Your task to perform on an android device: Open Amazon Image 0: 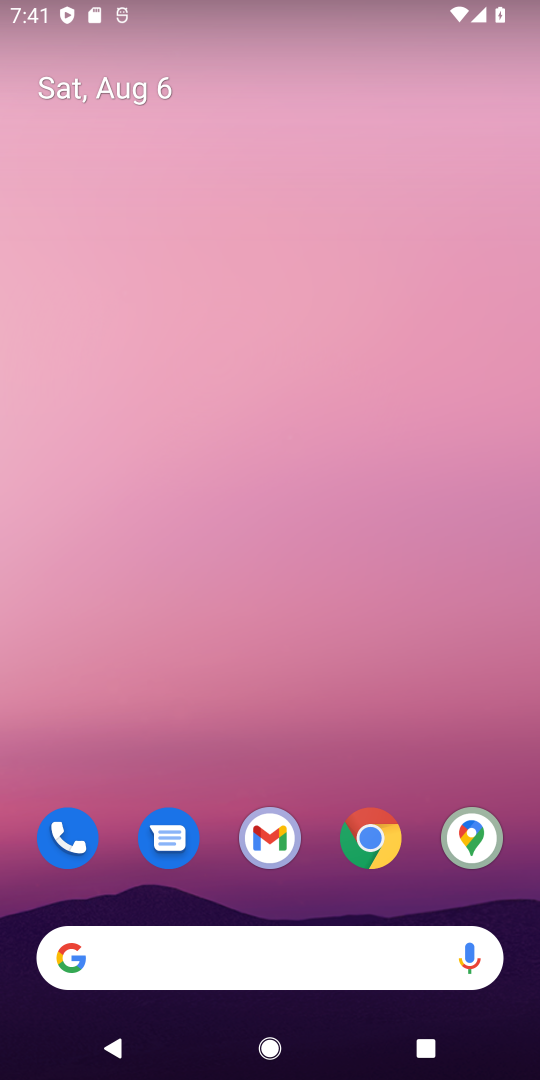
Step 0: press home button
Your task to perform on an android device: Open Amazon Image 1: 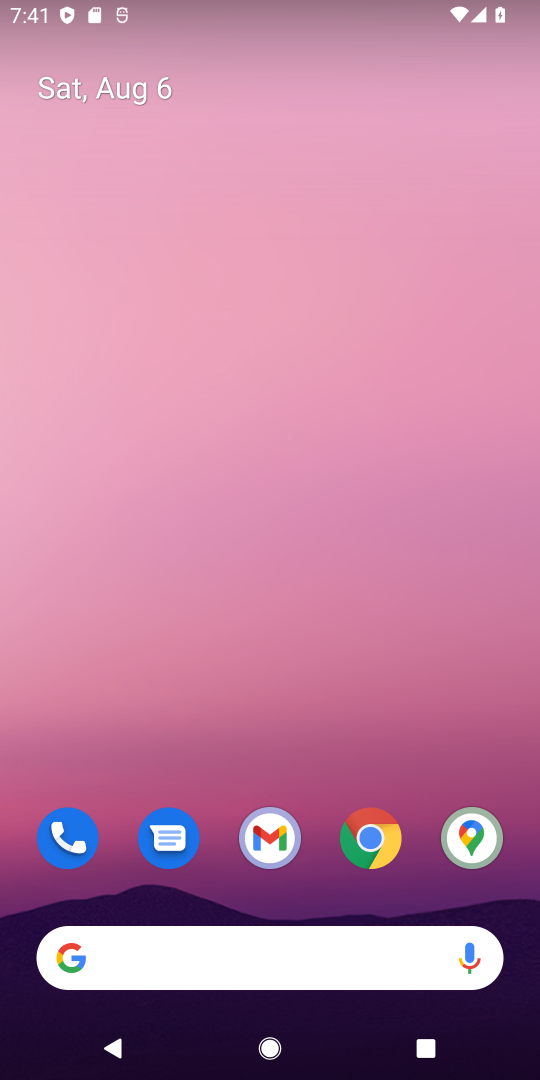
Step 1: click (364, 849)
Your task to perform on an android device: Open Amazon Image 2: 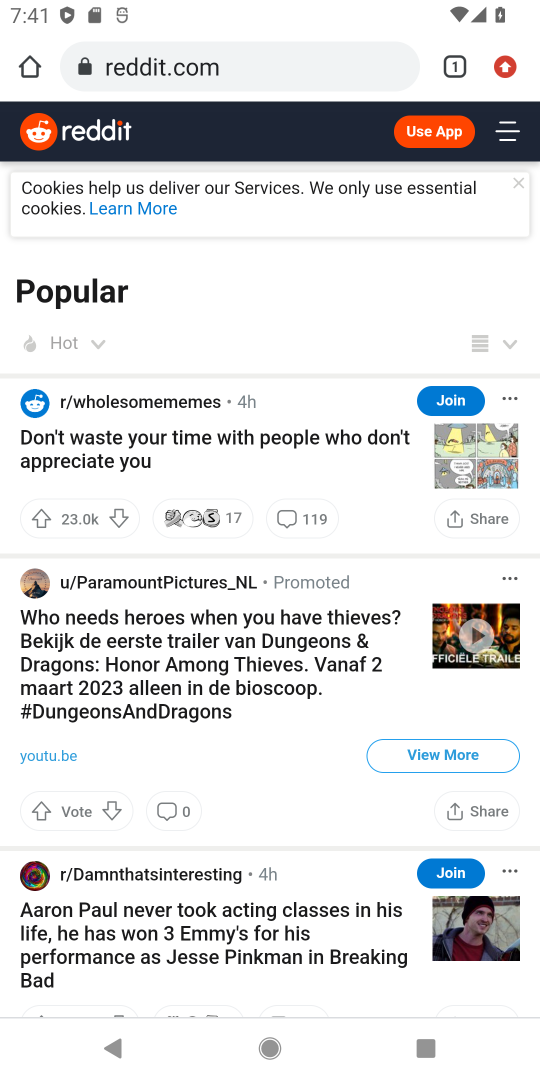
Step 2: click (184, 71)
Your task to perform on an android device: Open Amazon Image 3: 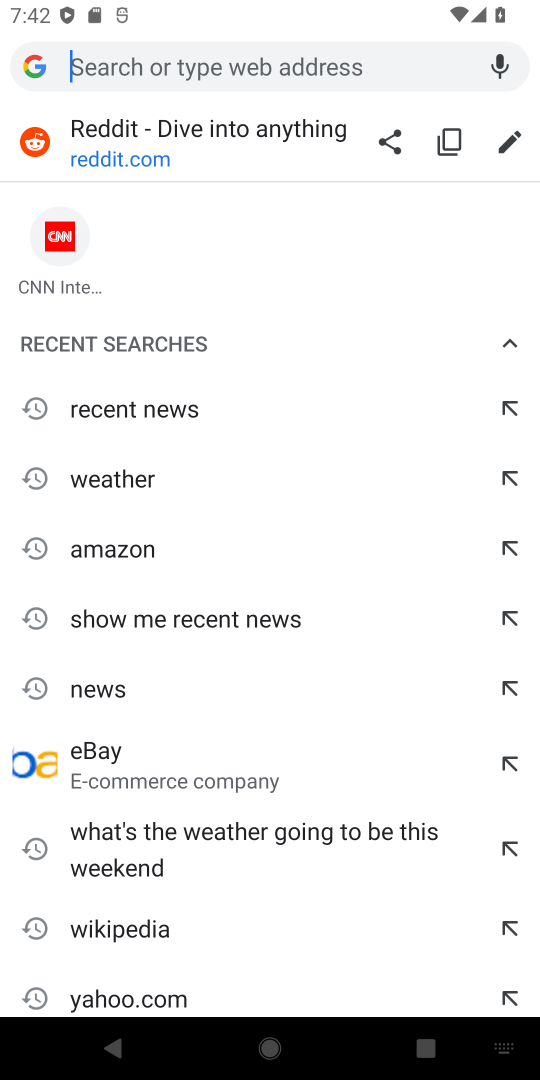
Step 3: type "www.amazon.com"
Your task to perform on an android device: Open Amazon Image 4: 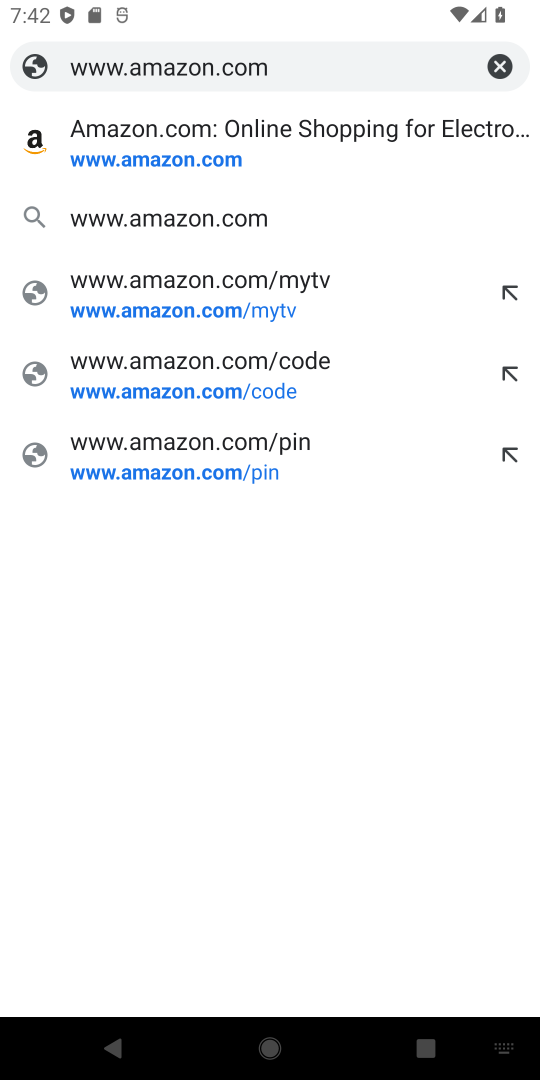
Step 4: click (195, 159)
Your task to perform on an android device: Open Amazon Image 5: 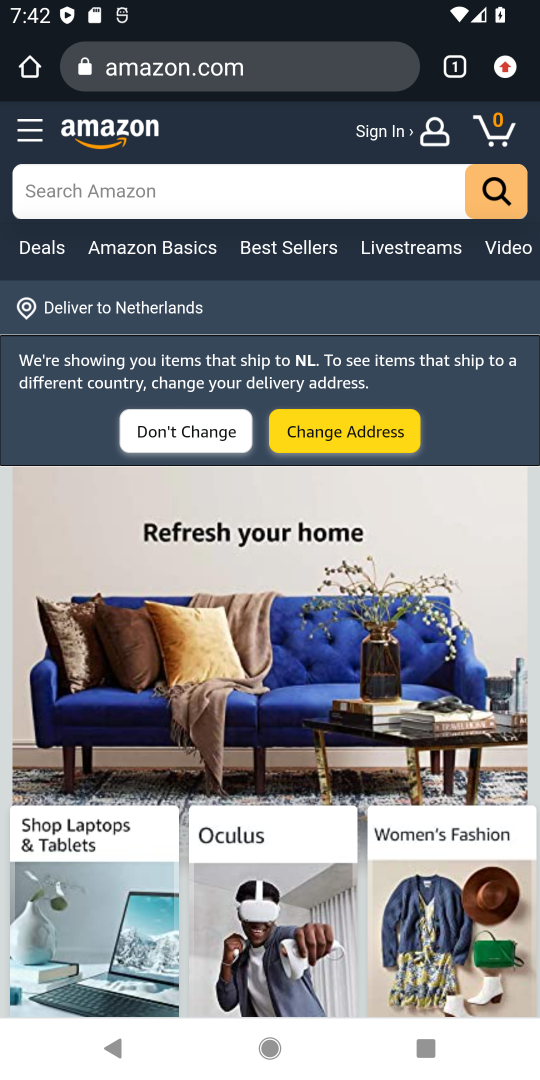
Step 5: task complete